Your task to perform on an android device: Go to Reddit.com Image 0: 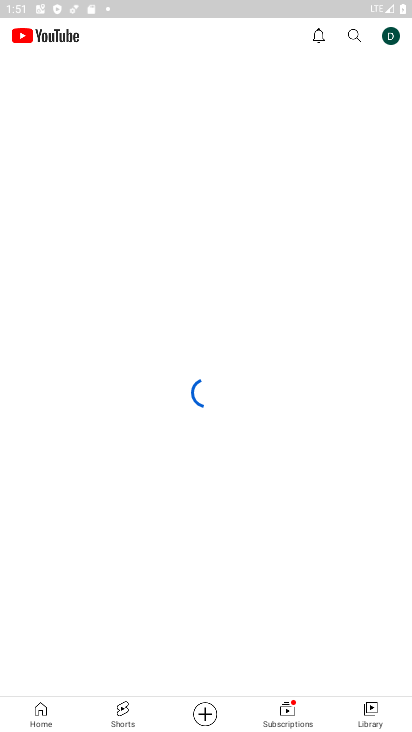
Step 0: press home button
Your task to perform on an android device: Go to Reddit.com Image 1: 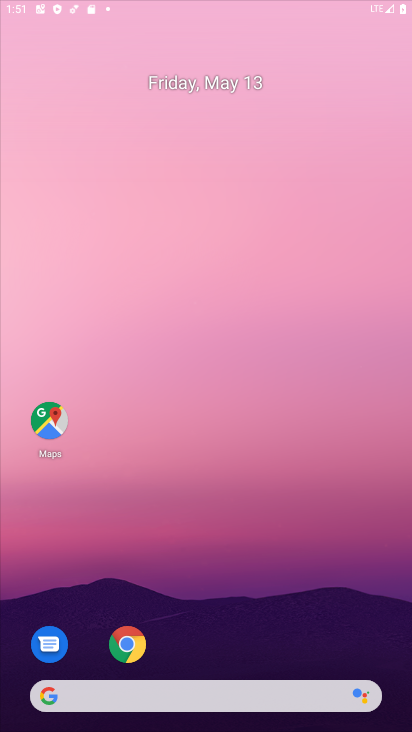
Step 1: drag from (364, 632) to (200, 155)
Your task to perform on an android device: Go to Reddit.com Image 2: 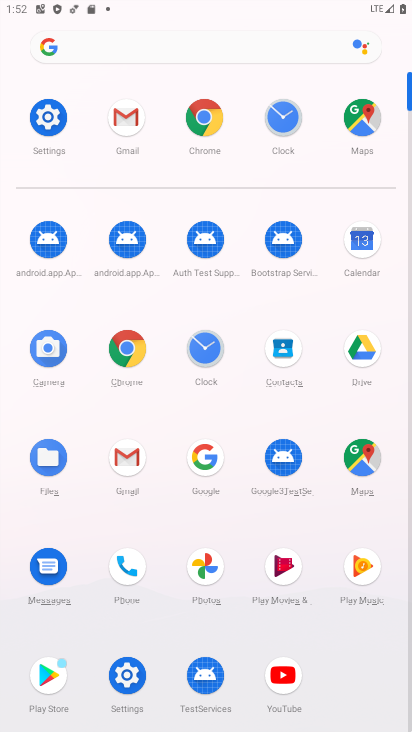
Step 2: click (130, 363)
Your task to perform on an android device: Go to Reddit.com Image 3: 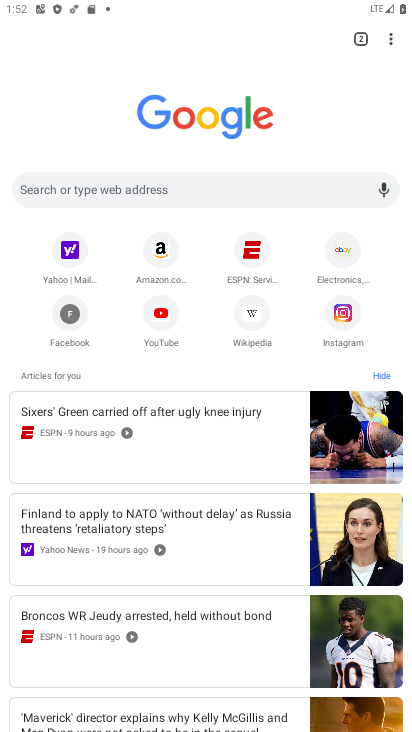
Step 3: click (222, 191)
Your task to perform on an android device: Go to Reddit.com Image 4: 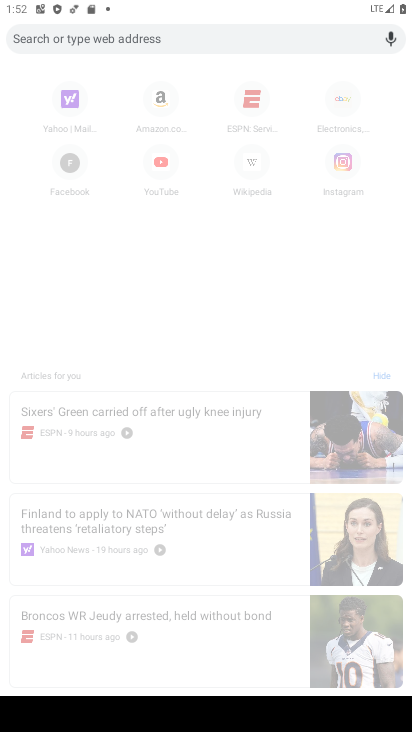
Step 4: type "reddit.com"
Your task to perform on an android device: Go to Reddit.com Image 5: 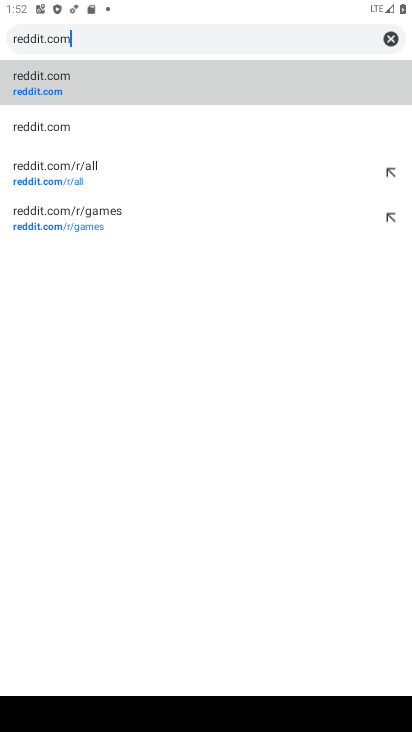
Step 5: click (219, 68)
Your task to perform on an android device: Go to Reddit.com Image 6: 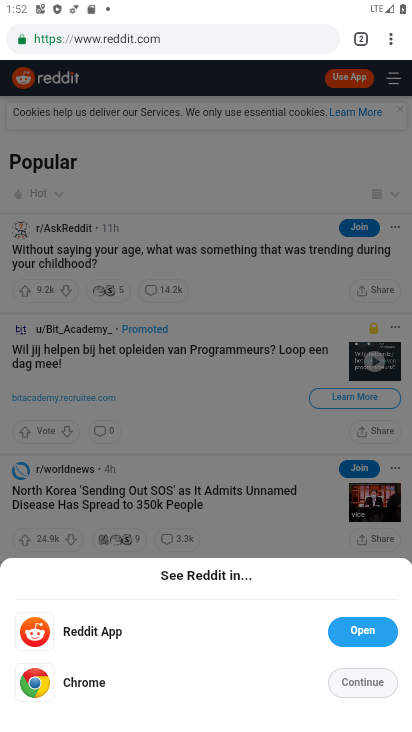
Step 6: task complete